Your task to perform on an android device: Open the web browser Image 0: 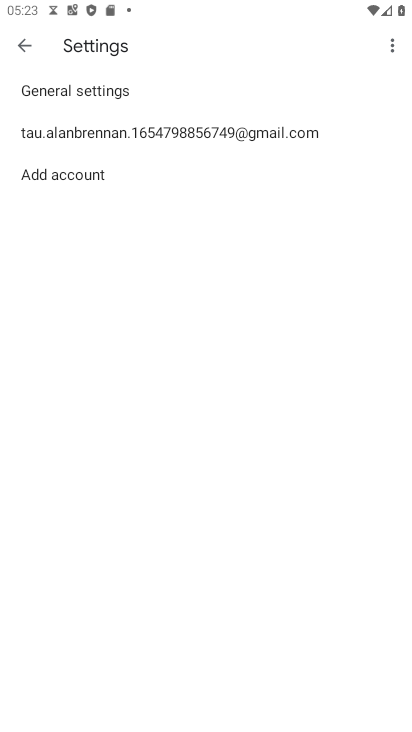
Step 0: press home button
Your task to perform on an android device: Open the web browser Image 1: 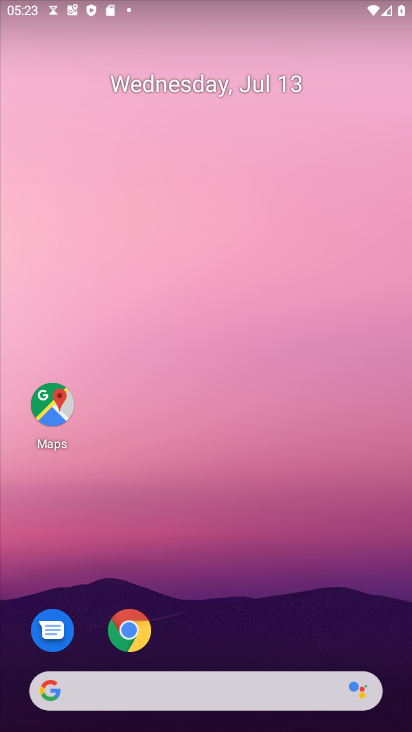
Step 1: drag from (317, 689) to (354, 139)
Your task to perform on an android device: Open the web browser Image 2: 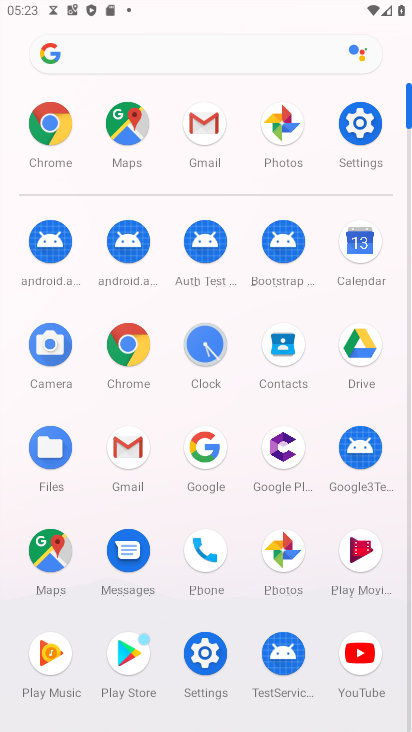
Step 2: click (138, 339)
Your task to perform on an android device: Open the web browser Image 3: 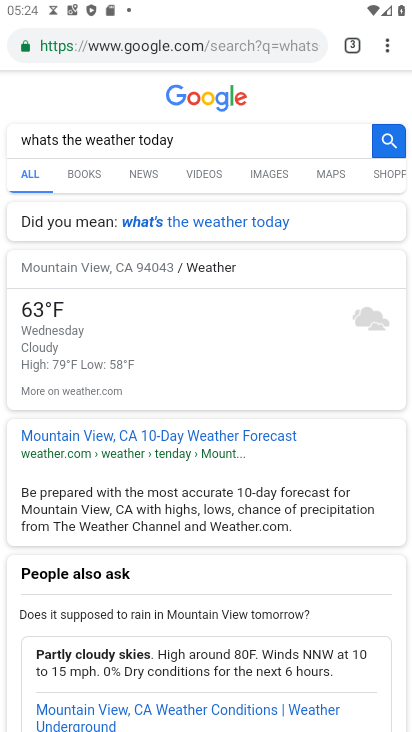
Step 3: task complete